Your task to perform on an android device: Show me productivity apps on the Play Store Image 0: 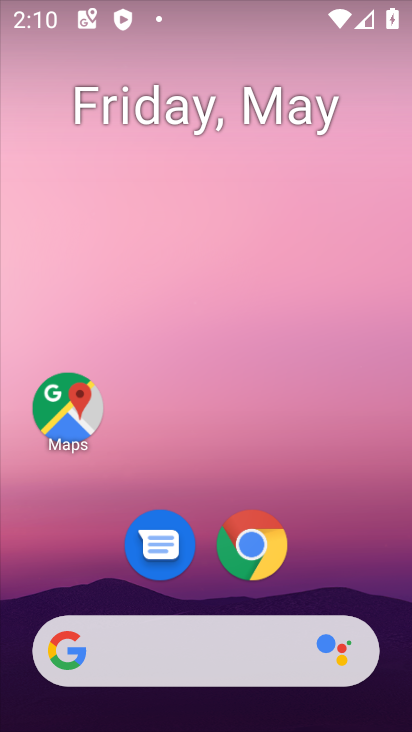
Step 0: drag from (52, 616) to (208, 109)
Your task to perform on an android device: Show me productivity apps on the Play Store Image 1: 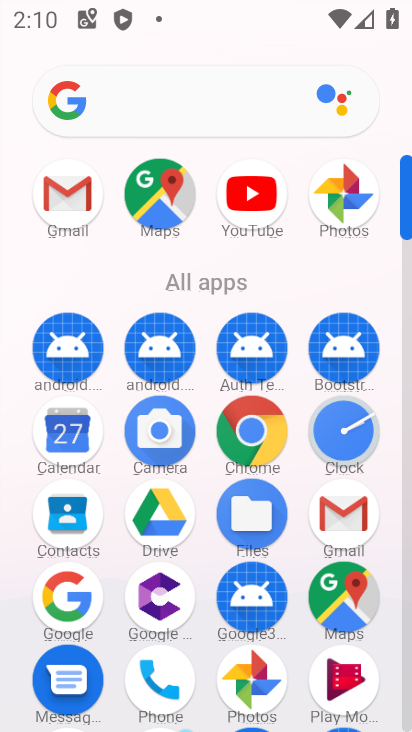
Step 1: drag from (107, 617) to (198, 223)
Your task to perform on an android device: Show me productivity apps on the Play Store Image 2: 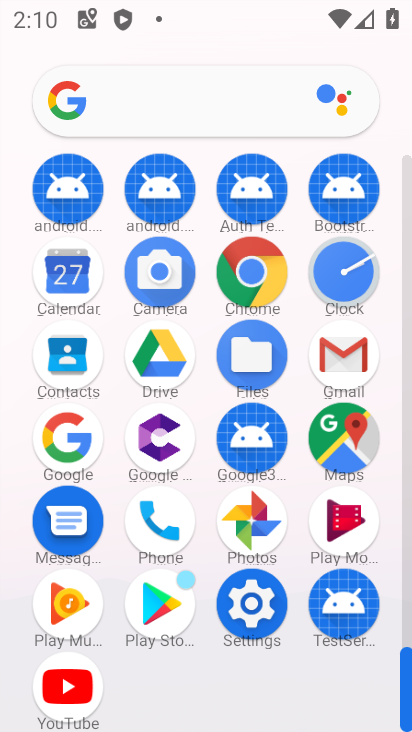
Step 2: click (153, 592)
Your task to perform on an android device: Show me productivity apps on the Play Store Image 3: 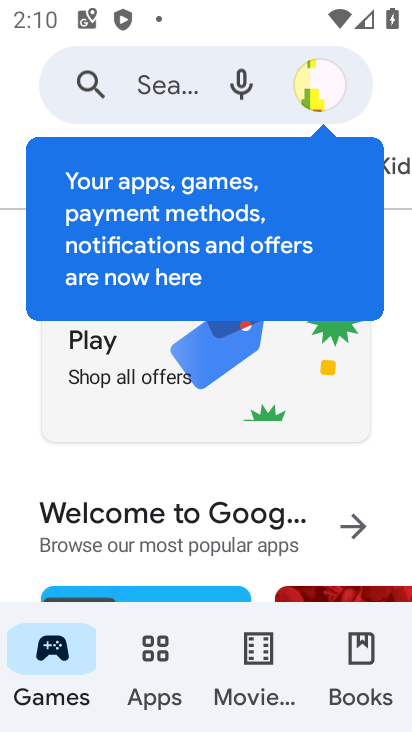
Step 3: click (174, 669)
Your task to perform on an android device: Show me productivity apps on the Play Store Image 4: 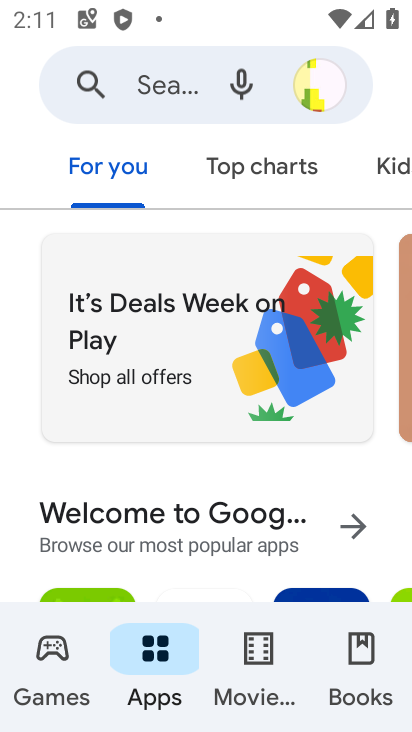
Step 4: drag from (377, 184) to (86, 179)
Your task to perform on an android device: Show me productivity apps on the Play Store Image 5: 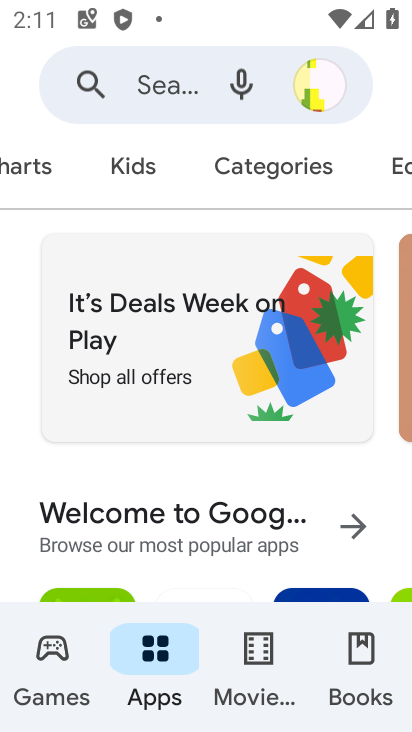
Step 5: click (255, 167)
Your task to perform on an android device: Show me productivity apps on the Play Store Image 6: 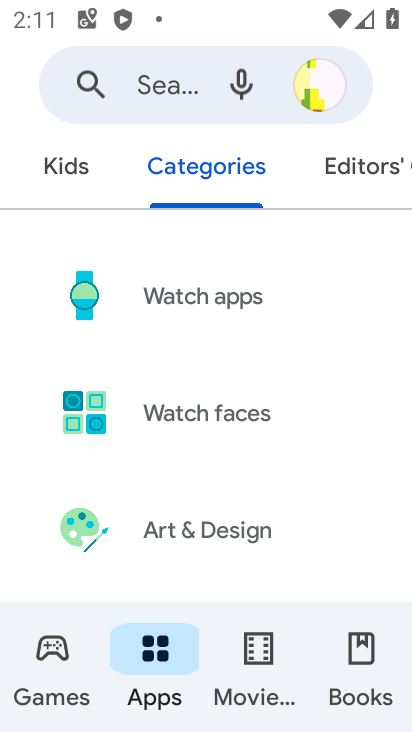
Step 6: drag from (187, 516) to (294, 24)
Your task to perform on an android device: Show me productivity apps on the Play Store Image 7: 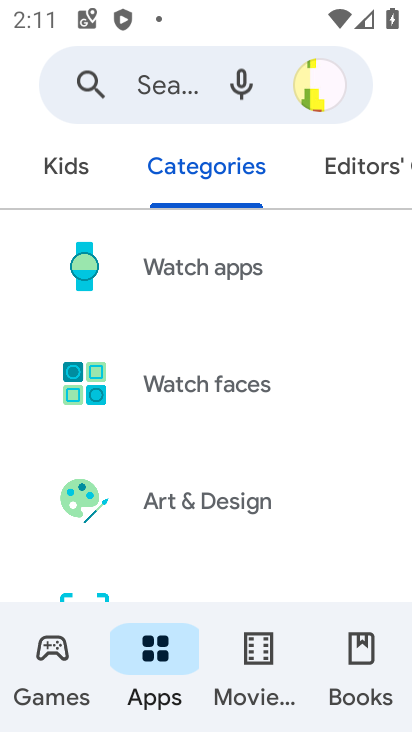
Step 7: drag from (180, 485) to (273, 87)
Your task to perform on an android device: Show me productivity apps on the Play Store Image 8: 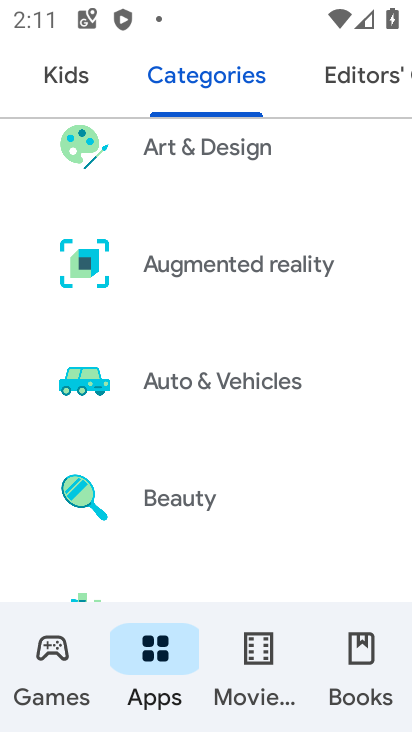
Step 8: drag from (188, 469) to (319, 35)
Your task to perform on an android device: Show me productivity apps on the Play Store Image 9: 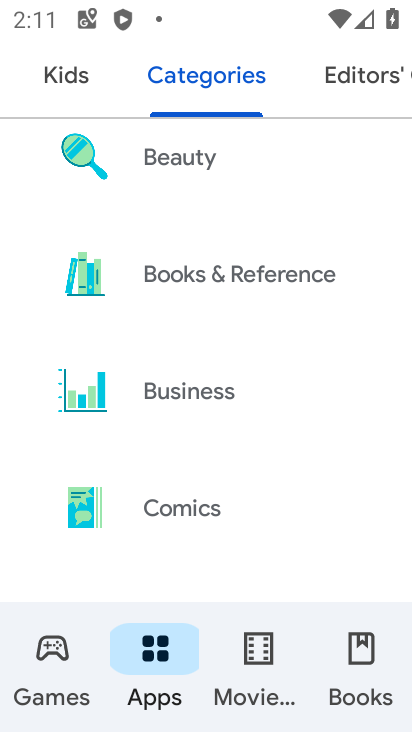
Step 9: drag from (170, 401) to (285, 0)
Your task to perform on an android device: Show me productivity apps on the Play Store Image 10: 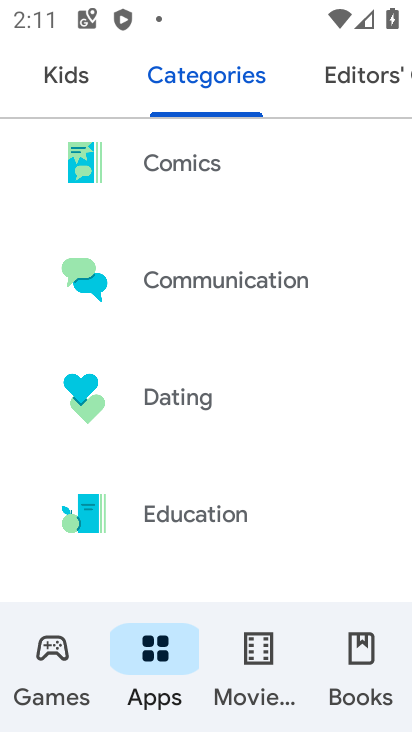
Step 10: drag from (189, 542) to (284, 47)
Your task to perform on an android device: Show me productivity apps on the Play Store Image 11: 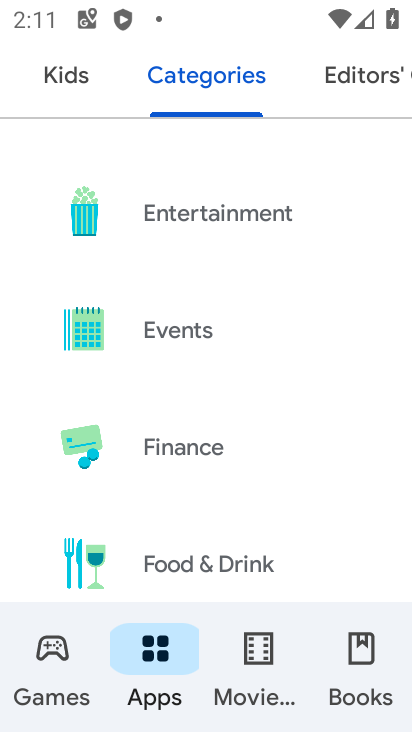
Step 11: drag from (189, 489) to (278, 81)
Your task to perform on an android device: Show me productivity apps on the Play Store Image 12: 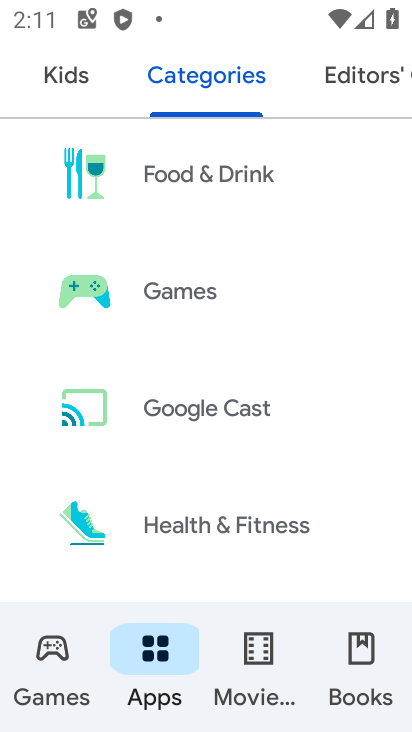
Step 12: drag from (164, 538) to (281, 117)
Your task to perform on an android device: Show me productivity apps on the Play Store Image 13: 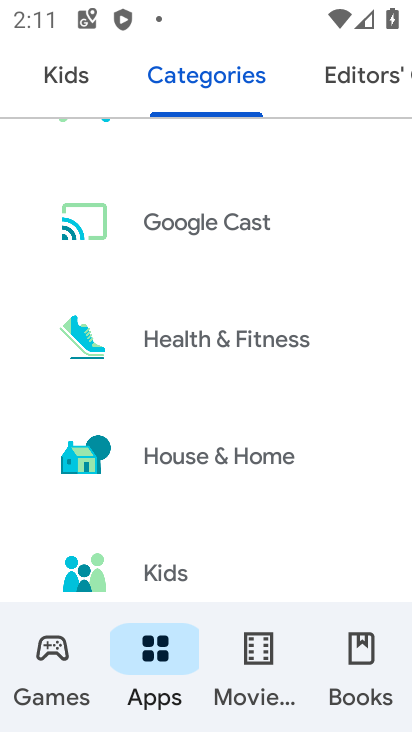
Step 13: drag from (134, 545) to (273, 84)
Your task to perform on an android device: Show me productivity apps on the Play Store Image 14: 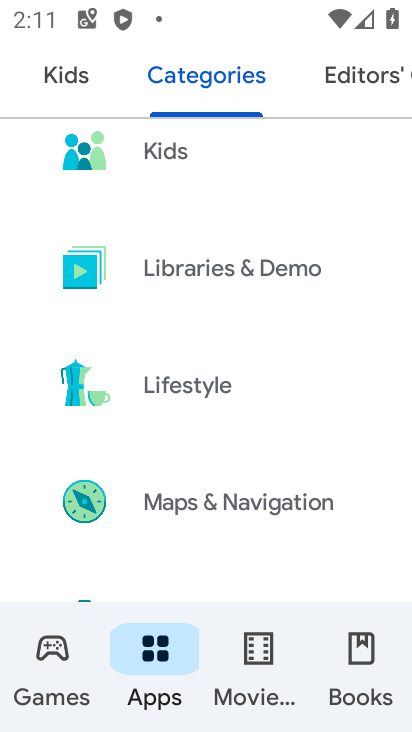
Step 14: drag from (264, 370) to (344, 97)
Your task to perform on an android device: Show me productivity apps on the Play Store Image 15: 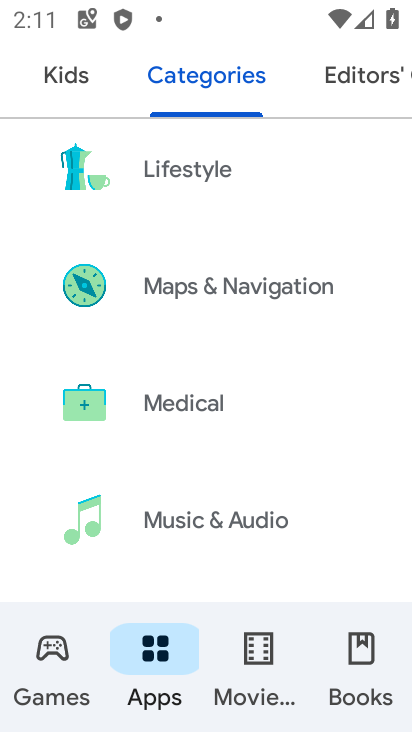
Step 15: drag from (188, 571) to (263, 103)
Your task to perform on an android device: Show me productivity apps on the Play Store Image 16: 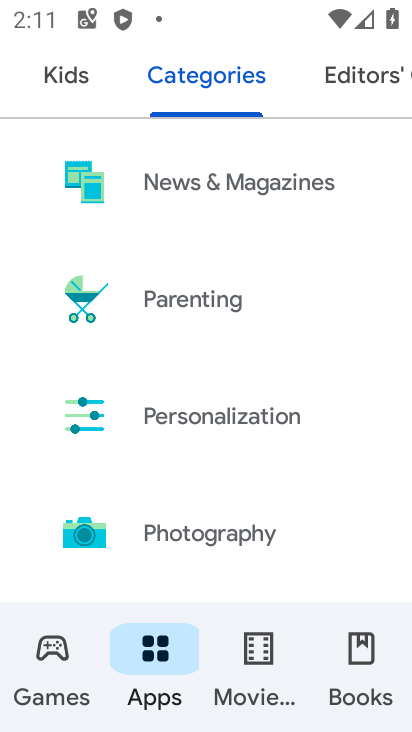
Step 16: drag from (156, 541) to (226, 197)
Your task to perform on an android device: Show me productivity apps on the Play Store Image 17: 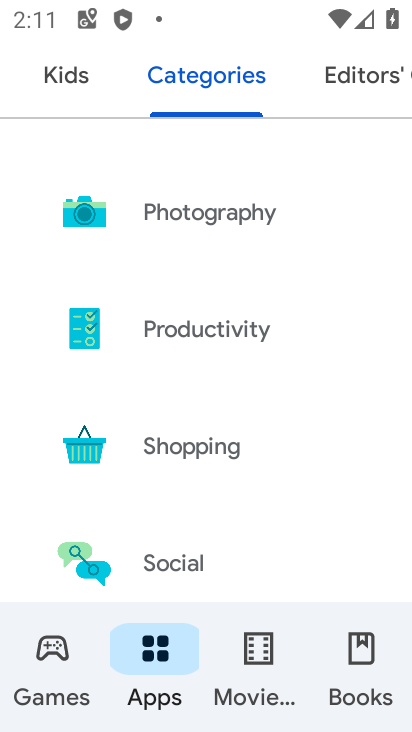
Step 17: click (191, 334)
Your task to perform on an android device: Show me productivity apps on the Play Store Image 18: 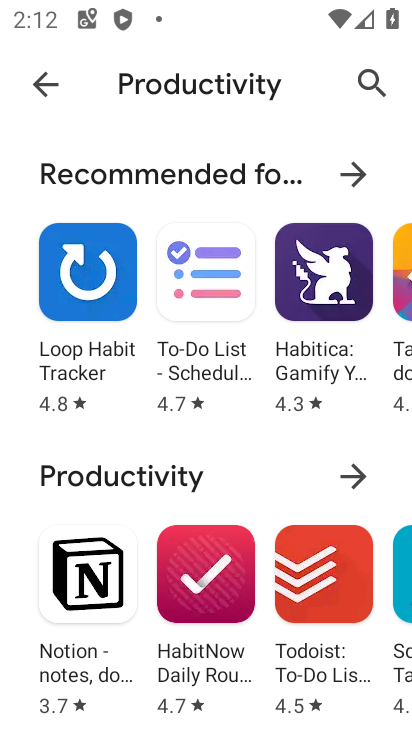
Step 18: task complete